Your task to perform on an android device: Set the phone to "Do not disturb". Image 0: 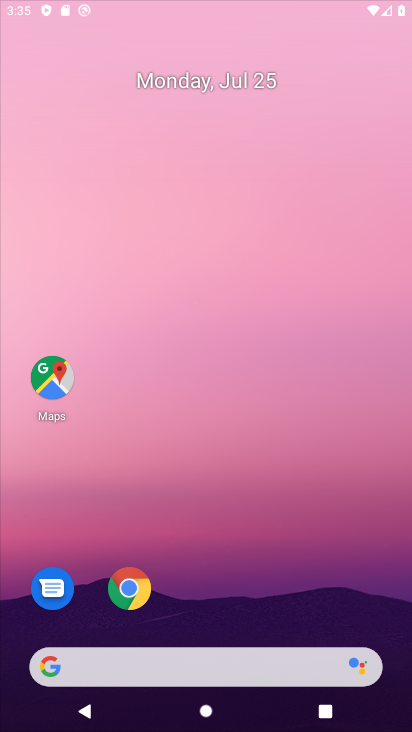
Step 0: drag from (249, 564) to (249, 158)
Your task to perform on an android device: Set the phone to "Do not disturb". Image 1: 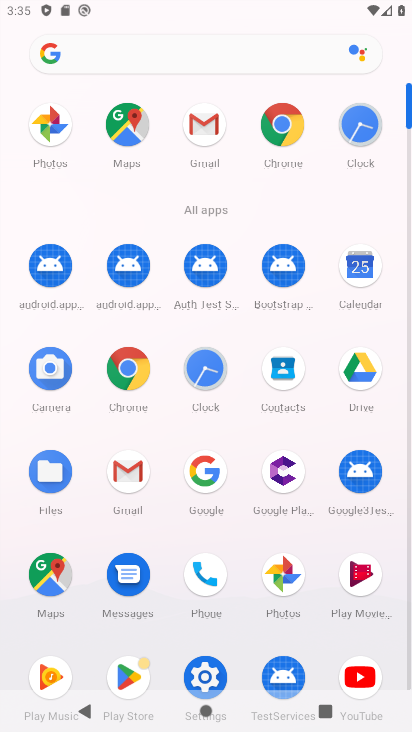
Step 1: click (191, 637)
Your task to perform on an android device: Set the phone to "Do not disturb". Image 2: 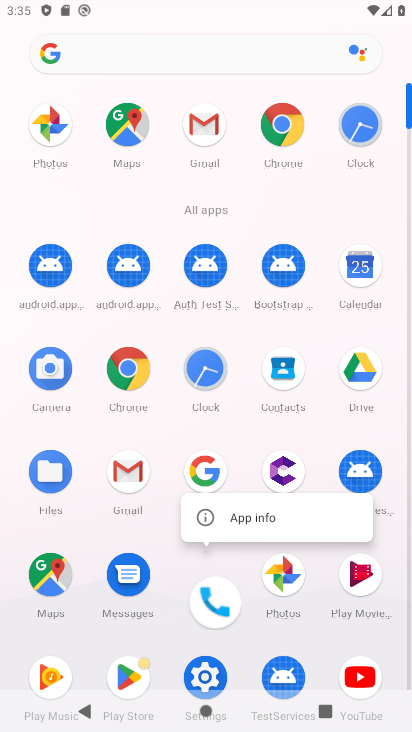
Step 2: click (200, 669)
Your task to perform on an android device: Set the phone to "Do not disturb". Image 3: 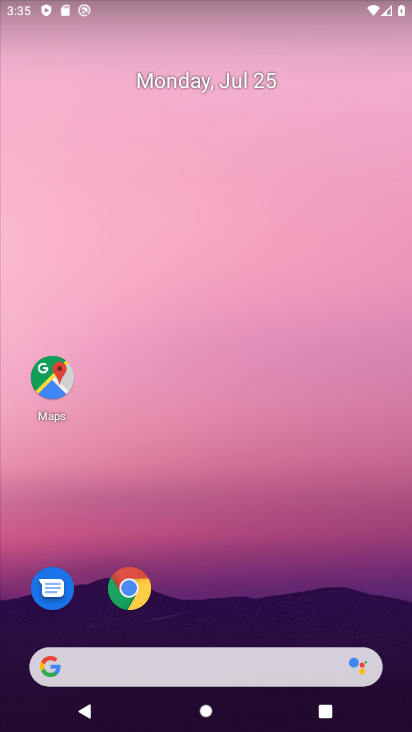
Step 3: drag from (235, 661) to (160, 383)
Your task to perform on an android device: Set the phone to "Do not disturb". Image 4: 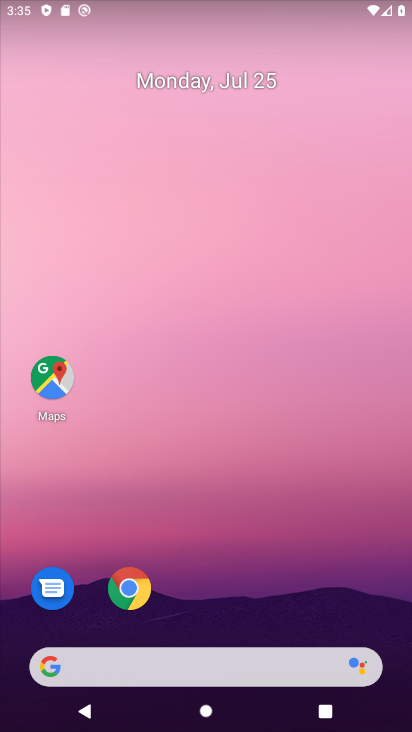
Step 4: drag from (211, 660) to (160, 176)
Your task to perform on an android device: Set the phone to "Do not disturb". Image 5: 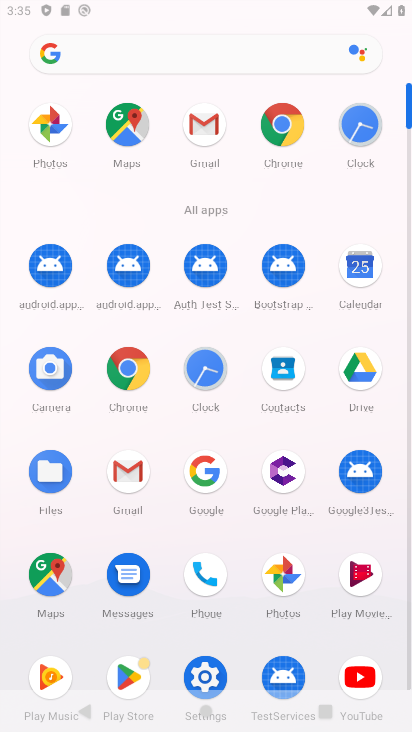
Step 5: drag from (201, 456) to (212, 41)
Your task to perform on an android device: Set the phone to "Do not disturb". Image 6: 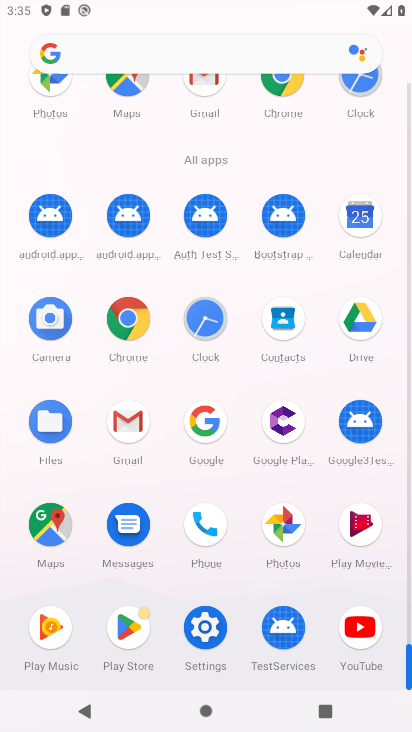
Step 6: click (193, 630)
Your task to perform on an android device: Set the phone to "Do not disturb". Image 7: 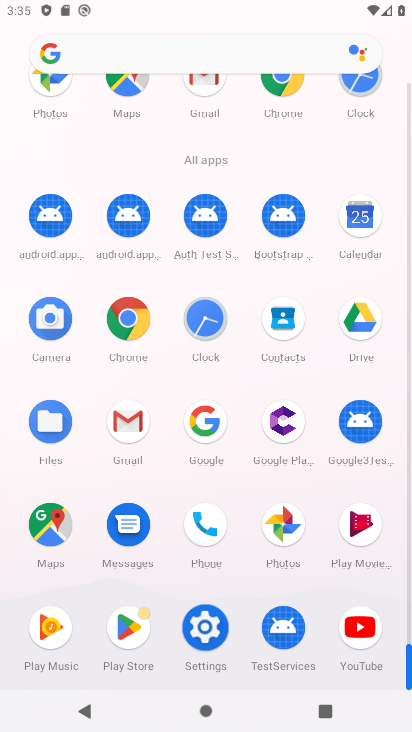
Step 7: click (190, 622)
Your task to perform on an android device: Set the phone to "Do not disturb". Image 8: 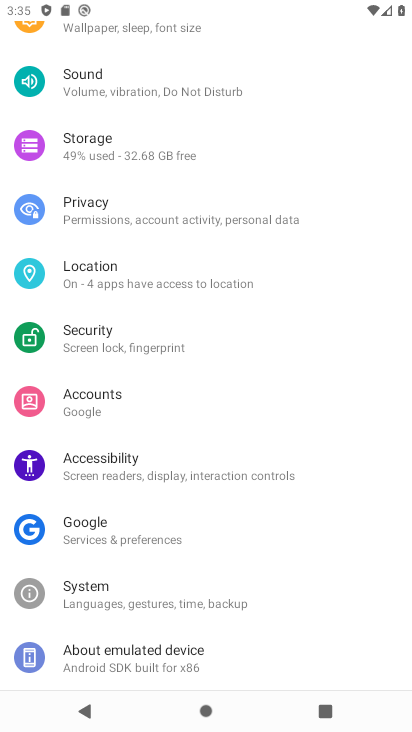
Step 8: click (210, 618)
Your task to perform on an android device: Set the phone to "Do not disturb". Image 9: 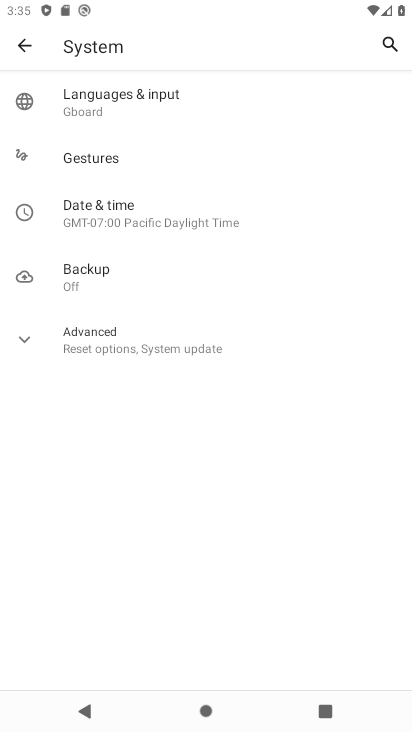
Step 9: click (39, 51)
Your task to perform on an android device: Set the phone to "Do not disturb". Image 10: 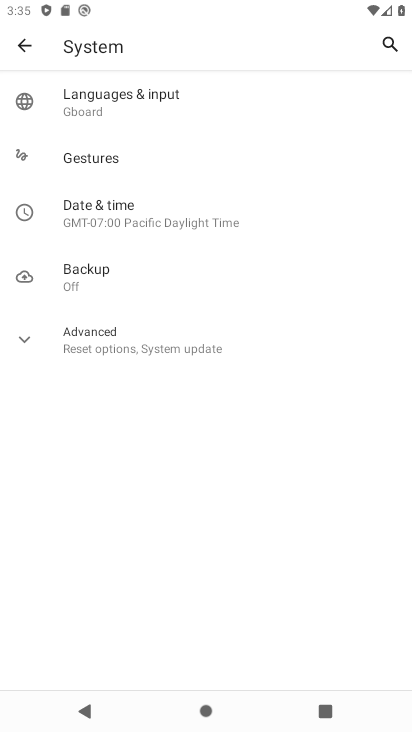
Step 10: click (39, 51)
Your task to perform on an android device: Set the phone to "Do not disturb". Image 11: 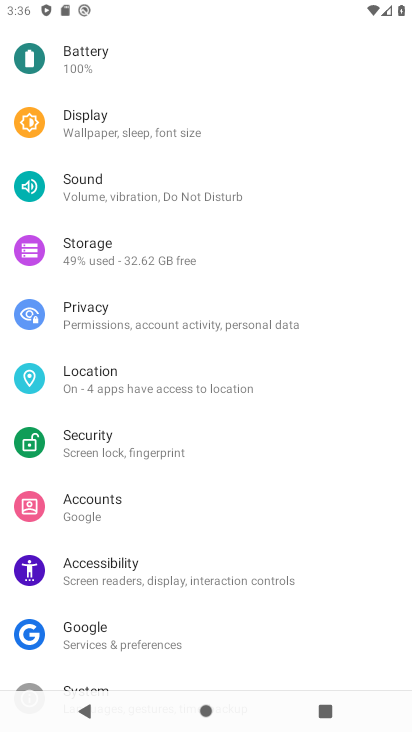
Step 11: click (99, 194)
Your task to perform on an android device: Set the phone to "Do not disturb". Image 12: 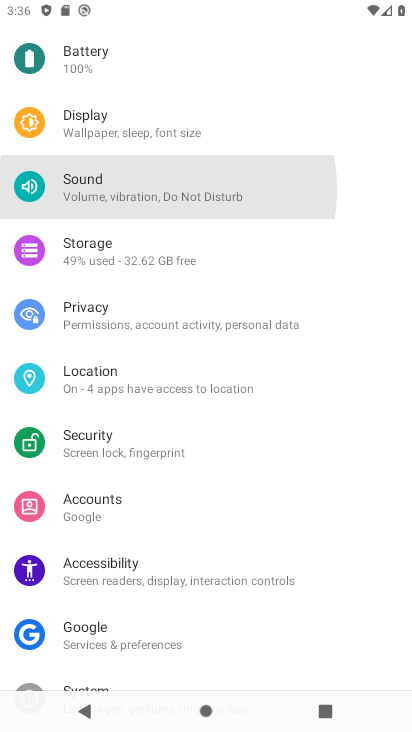
Step 12: click (93, 204)
Your task to perform on an android device: Set the phone to "Do not disturb". Image 13: 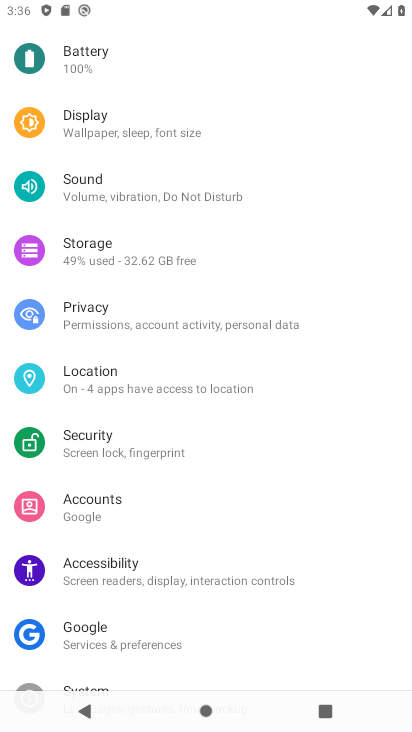
Step 13: click (93, 204)
Your task to perform on an android device: Set the phone to "Do not disturb". Image 14: 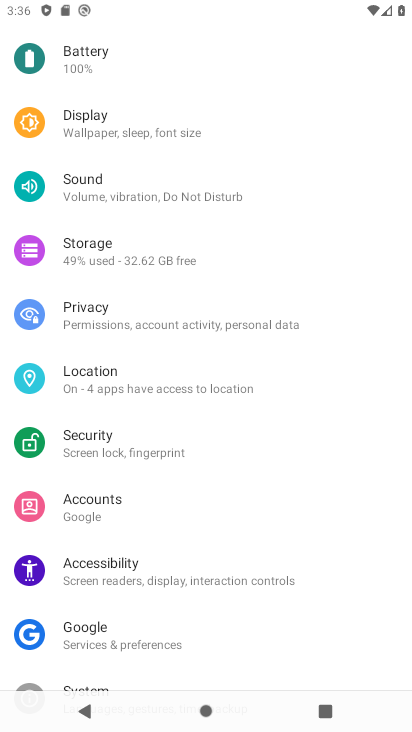
Step 14: click (94, 204)
Your task to perform on an android device: Set the phone to "Do not disturb". Image 15: 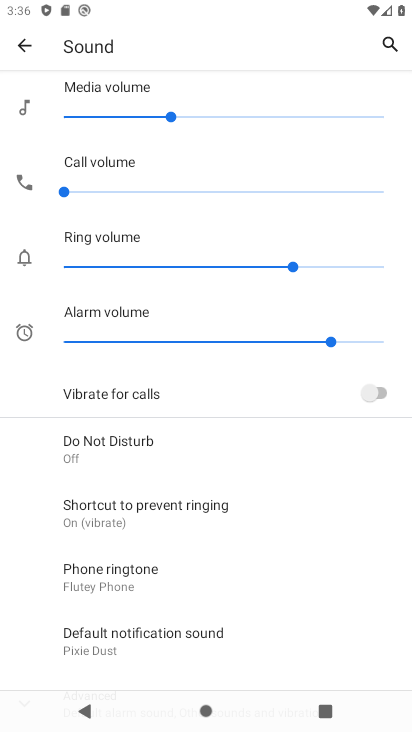
Step 15: click (96, 449)
Your task to perform on an android device: Set the phone to "Do not disturb". Image 16: 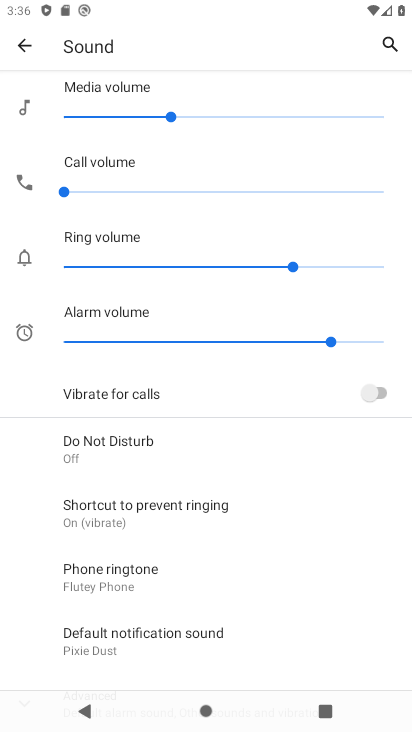
Step 16: click (95, 448)
Your task to perform on an android device: Set the phone to "Do not disturb". Image 17: 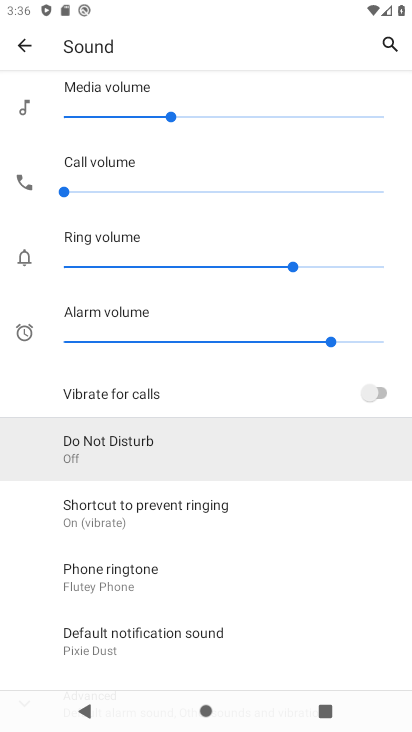
Step 17: click (101, 451)
Your task to perform on an android device: Set the phone to "Do not disturb". Image 18: 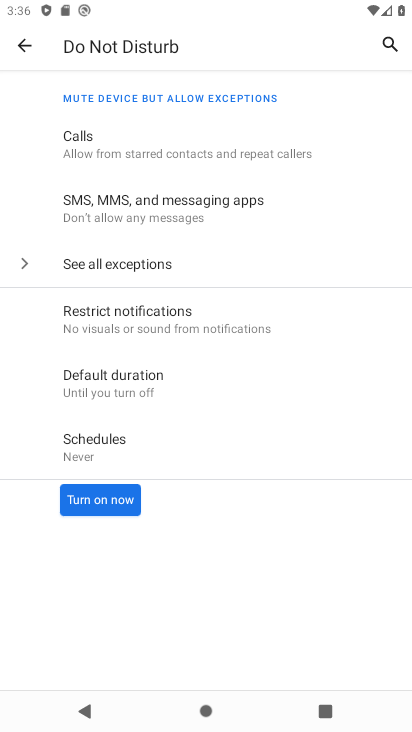
Step 18: click (133, 511)
Your task to perform on an android device: Set the phone to "Do not disturb". Image 19: 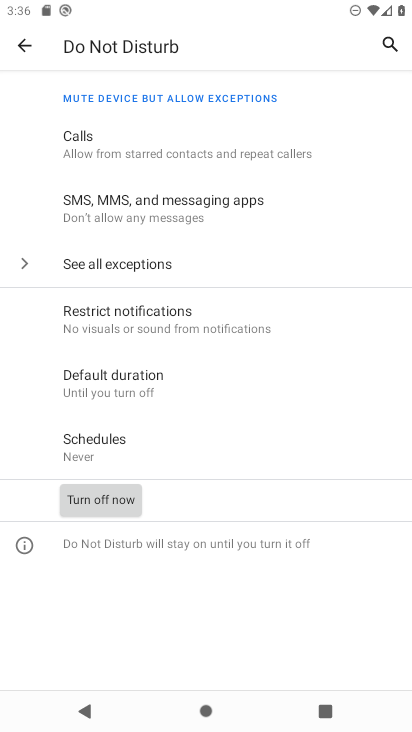
Step 19: task complete